Your task to perform on an android device: Open calendar and show me the fourth week of next month Image 0: 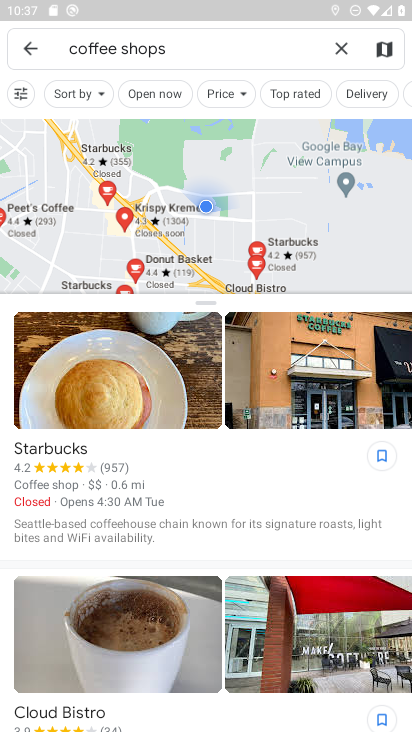
Step 0: press home button
Your task to perform on an android device: Open calendar and show me the fourth week of next month Image 1: 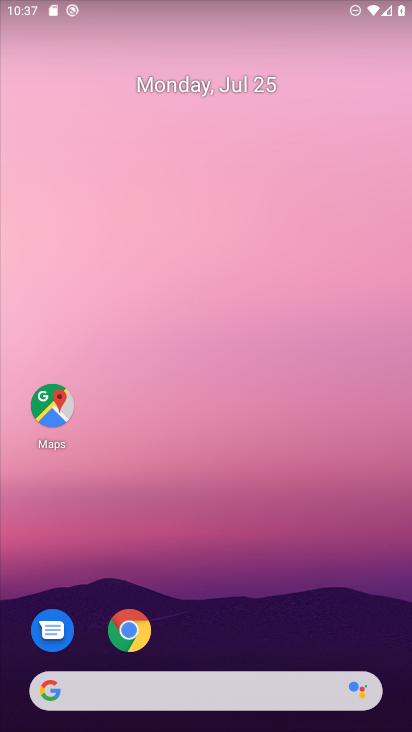
Step 1: drag from (305, 554) to (160, 73)
Your task to perform on an android device: Open calendar and show me the fourth week of next month Image 2: 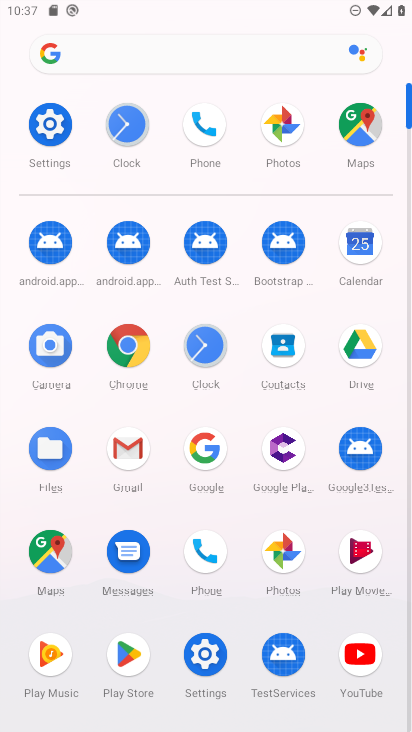
Step 2: click (367, 247)
Your task to perform on an android device: Open calendar and show me the fourth week of next month Image 3: 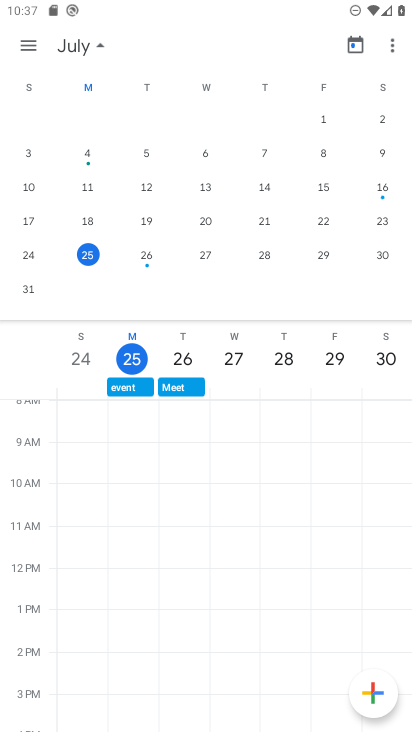
Step 3: drag from (369, 232) to (38, 209)
Your task to perform on an android device: Open calendar and show me the fourth week of next month Image 4: 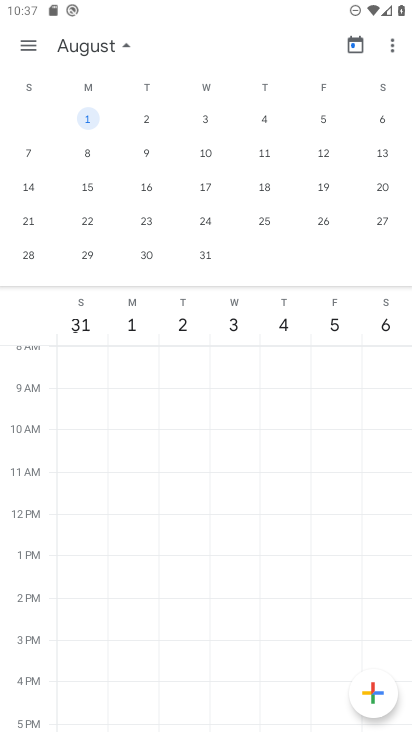
Step 4: click (141, 205)
Your task to perform on an android device: Open calendar and show me the fourth week of next month Image 5: 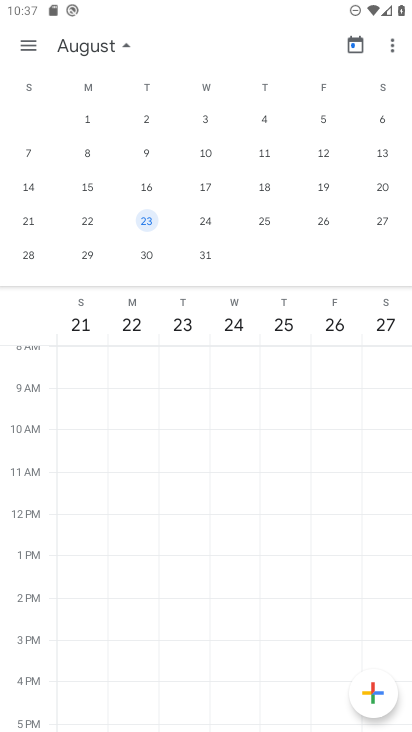
Step 5: task complete